Your task to perform on an android device: Open Google Maps Image 0: 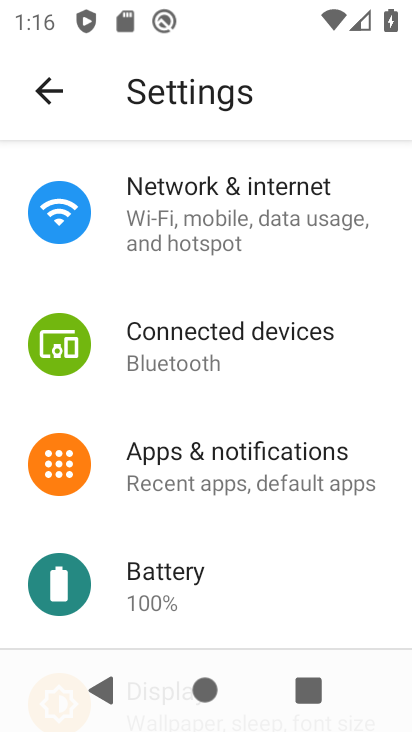
Step 0: press home button
Your task to perform on an android device: Open Google Maps Image 1: 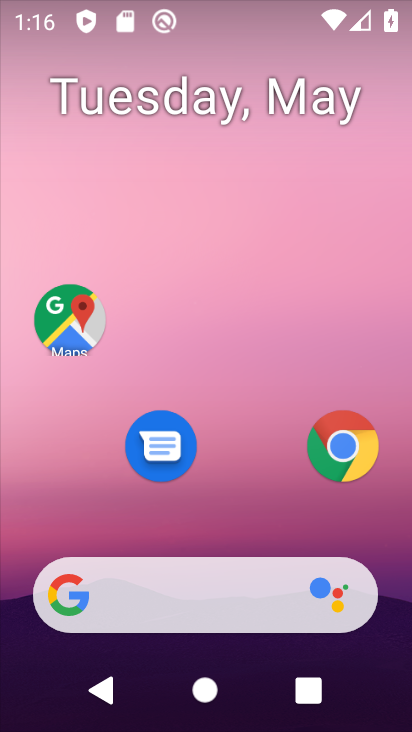
Step 1: click (85, 324)
Your task to perform on an android device: Open Google Maps Image 2: 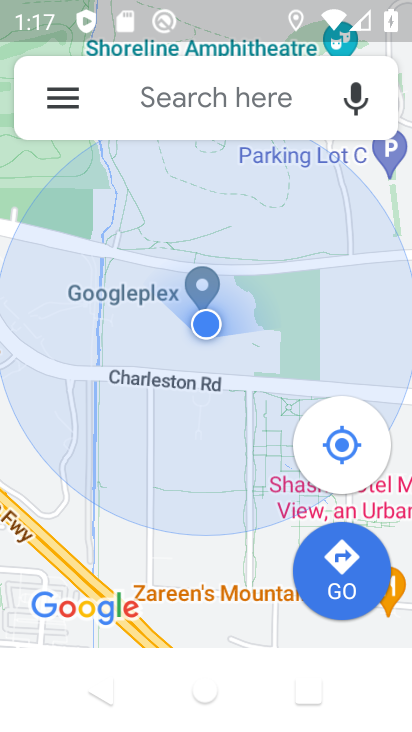
Step 2: task complete